Your task to perform on an android device: check storage Image 0: 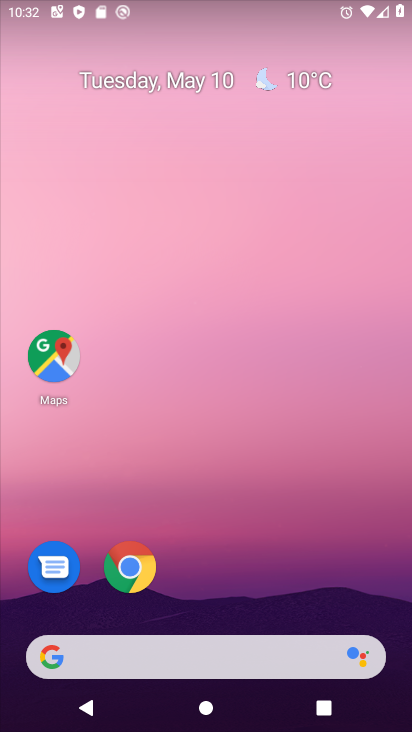
Step 0: drag from (334, 620) to (319, 87)
Your task to perform on an android device: check storage Image 1: 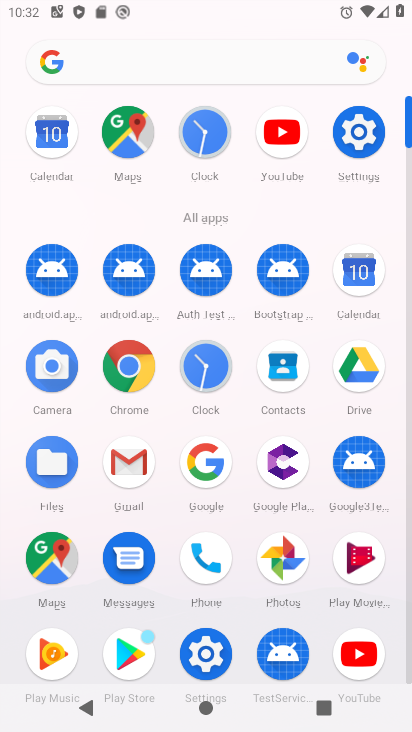
Step 1: click (351, 133)
Your task to perform on an android device: check storage Image 2: 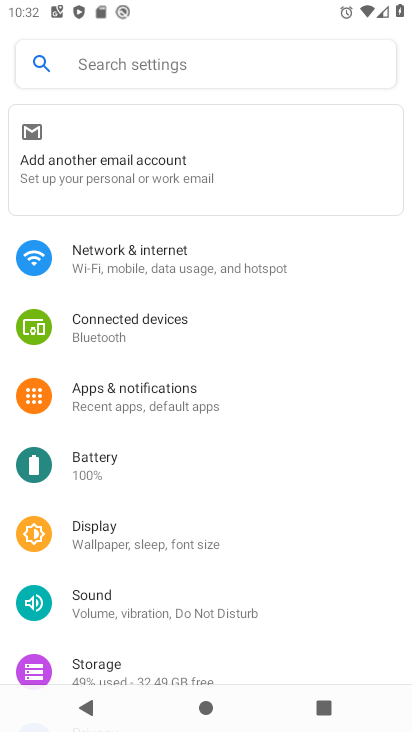
Step 2: drag from (243, 499) to (243, 277)
Your task to perform on an android device: check storage Image 3: 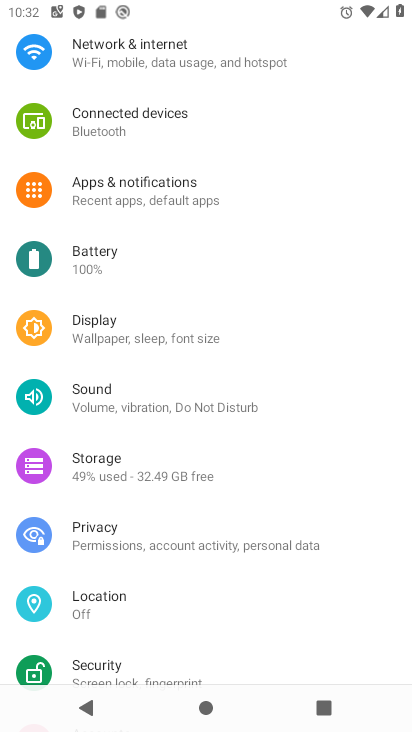
Step 3: click (154, 469)
Your task to perform on an android device: check storage Image 4: 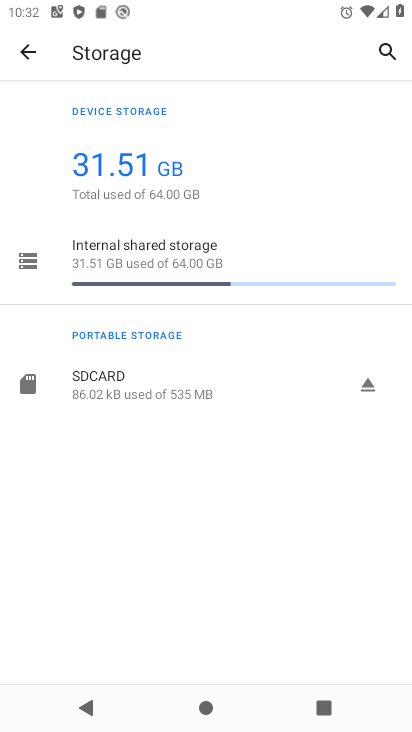
Step 4: click (182, 295)
Your task to perform on an android device: check storage Image 5: 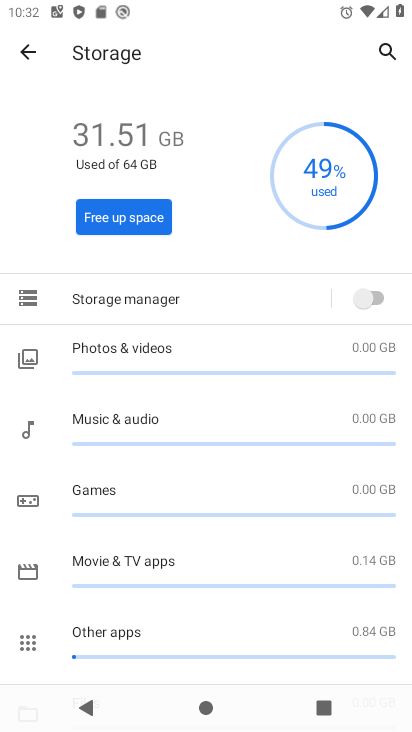
Step 5: task complete